Your task to perform on an android device: Open display settings Image 0: 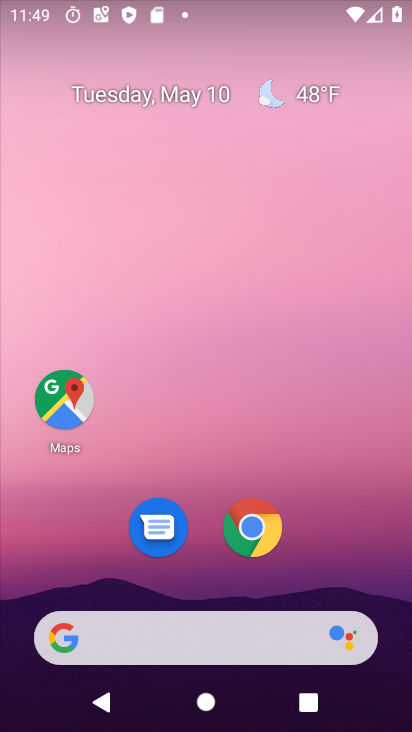
Step 0: drag from (229, 725) to (202, 44)
Your task to perform on an android device: Open display settings Image 1: 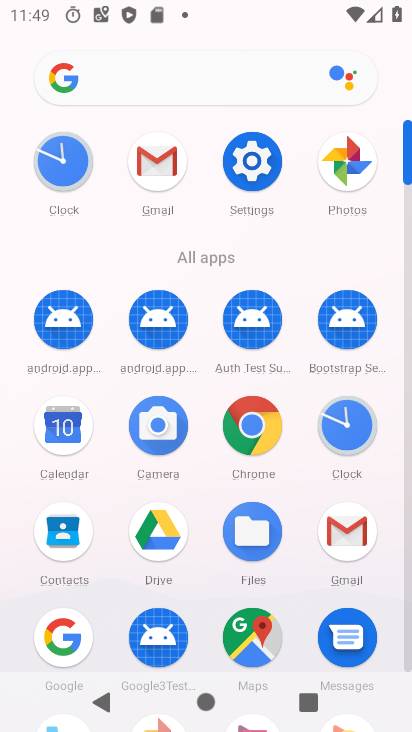
Step 1: click (255, 155)
Your task to perform on an android device: Open display settings Image 2: 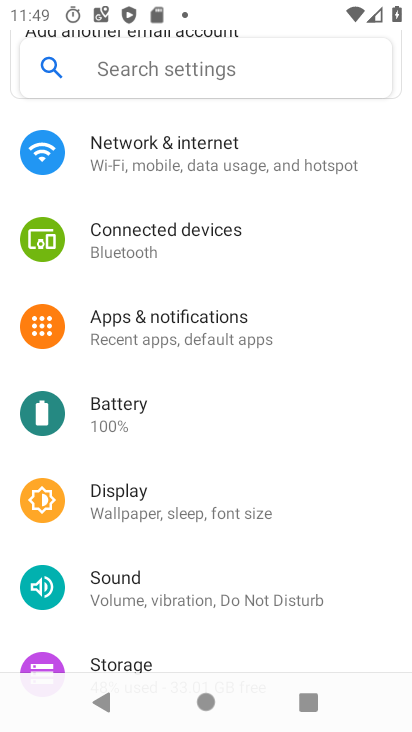
Step 2: click (140, 503)
Your task to perform on an android device: Open display settings Image 3: 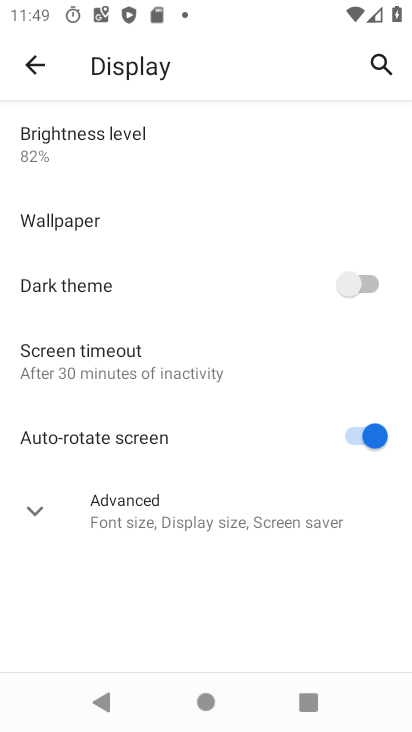
Step 3: task complete